Your task to perform on an android device: check the backup settings in the google photos Image 0: 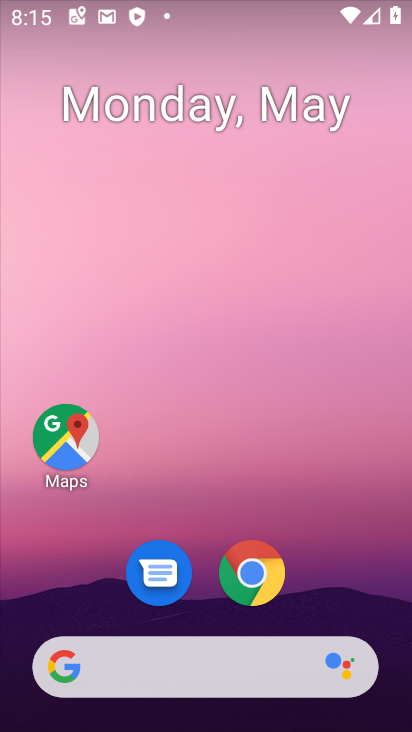
Step 0: drag from (213, 522) to (261, 182)
Your task to perform on an android device: check the backup settings in the google photos Image 1: 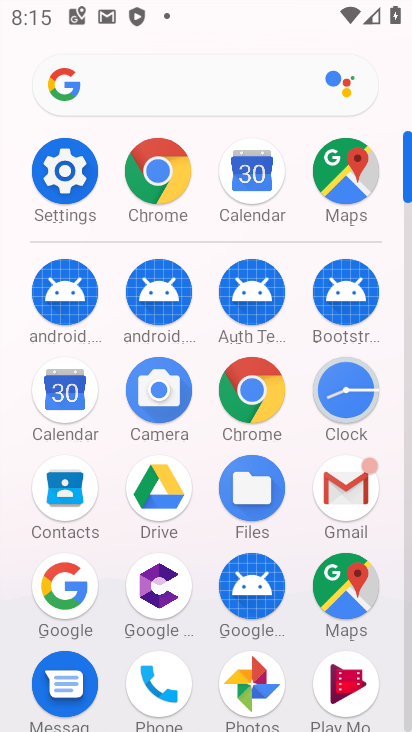
Step 1: drag from (228, 541) to (290, 279)
Your task to perform on an android device: check the backup settings in the google photos Image 2: 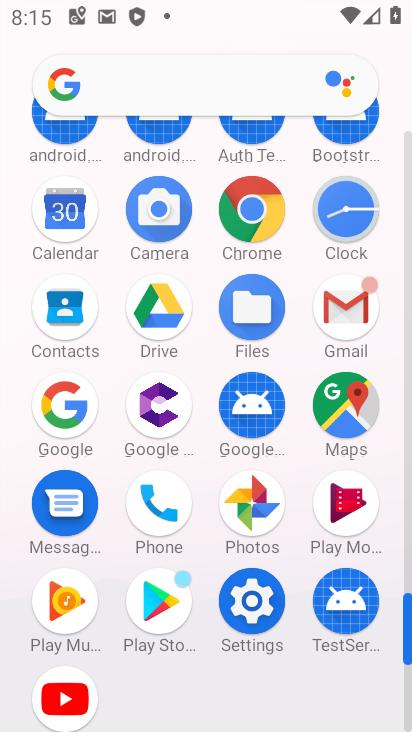
Step 2: click (254, 507)
Your task to perform on an android device: check the backup settings in the google photos Image 3: 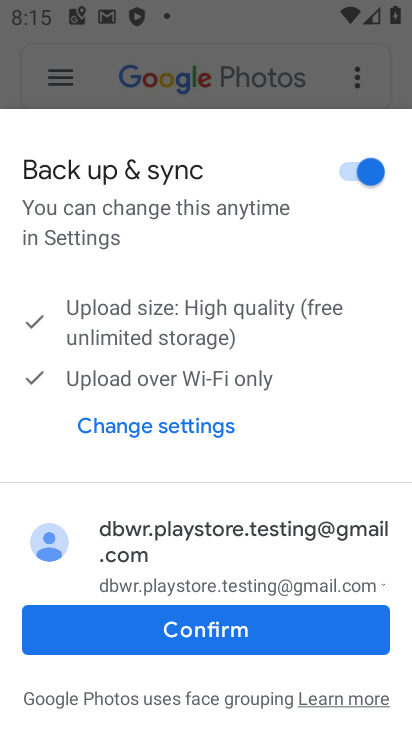
Step 3: click (222, 638)
Your task to perform on an android device: check the backup settings in the google photos Image 4: 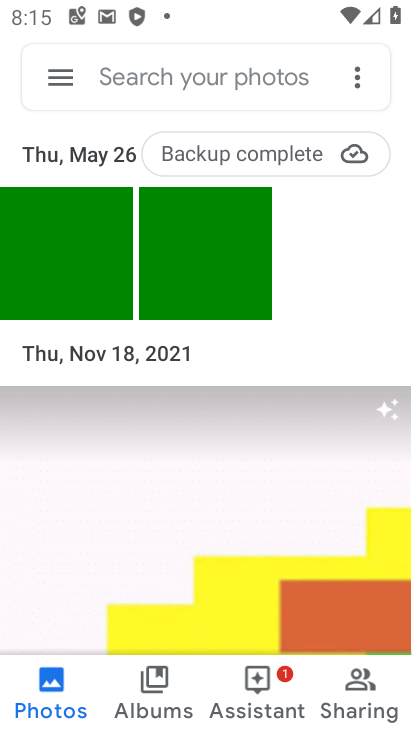
Step 4: click (58, 83)
Your task to perform on an android device: check the backup settings in the google photos Image 5: 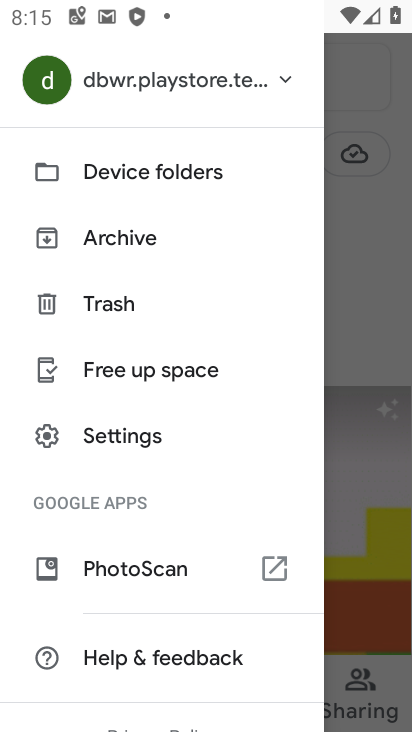
Step 5: click (138, 438)
Your task to perform on an android device: check the backup settings in the google photos Image 6: 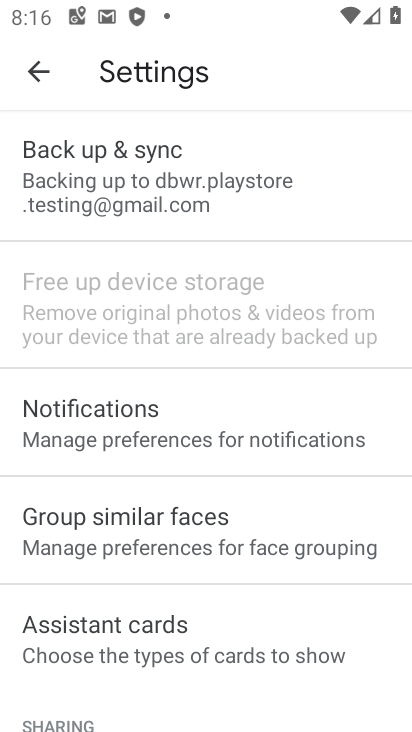
Step 6: click (239, 187)
Your task to perform on an android device: check the backup settings in the google photos Image 7: 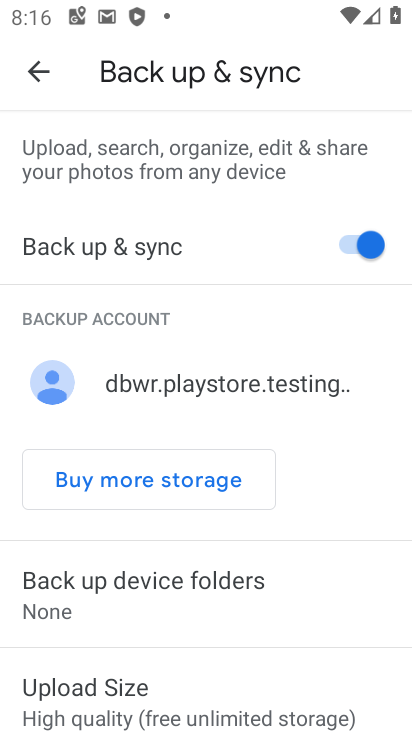
Step 7: task complete